Your task to perform on an android device: Open Google Maps and go to "Timeline" Image 0: 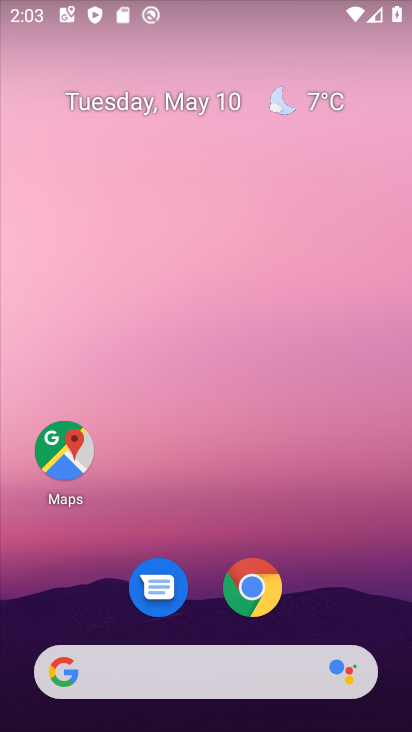
Step 0: drag from (352, 576) to (291, 147)
Your task to perform on an android device: Open Google Maps and go to "Timeline" Image 1: 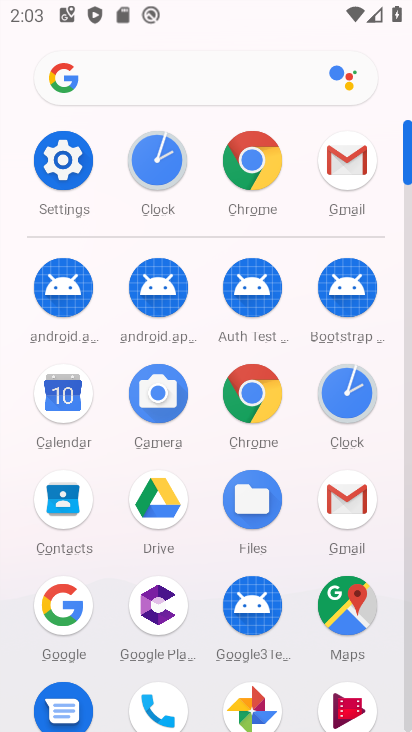
Step 1: click (345, 602)
Your task to perform on an android device: Open Google Maps and go to "Timeline" Image 2: 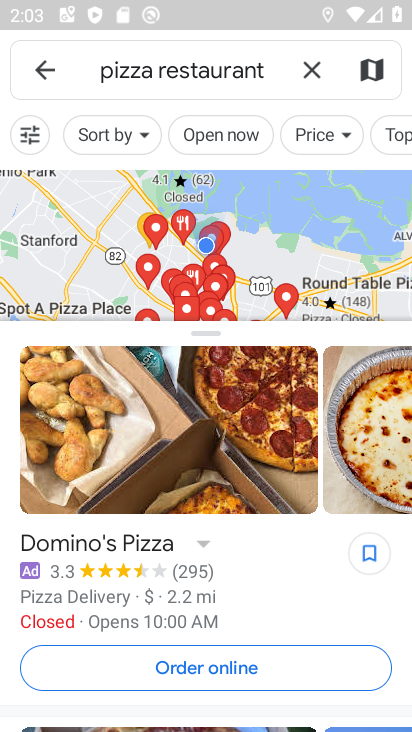
Step 2: click (43, 72)
Your task to perform on an android device: Open Google Maps and go to "Timeline" Image 3: 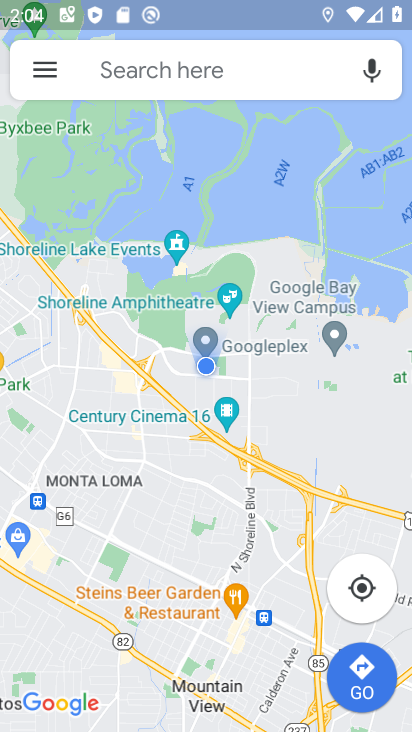
Step 3: click (41, 75)
Your task to perform on an android device: Open Google Maps and go to "Timeline" Image 4: 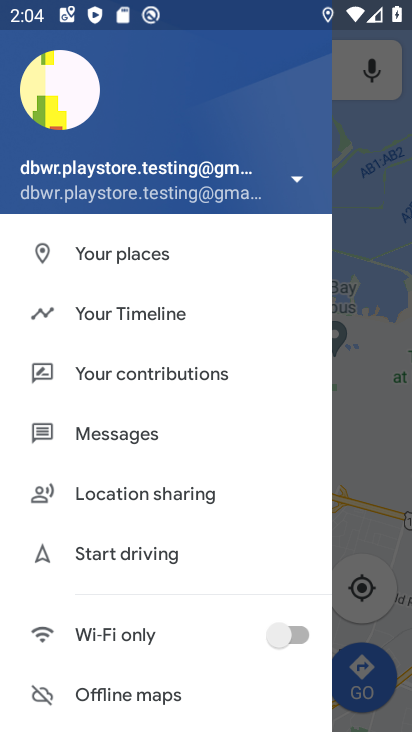
Step 4: click (126, 309)
Your task to perform on an android device: Open Google Maps and go to "Timeline" Image 5: 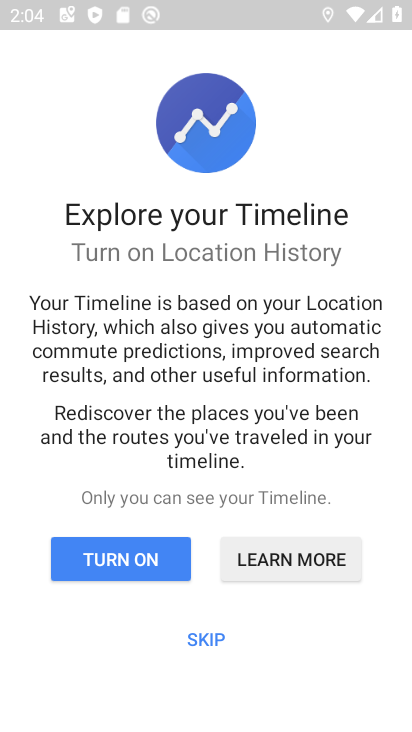
Step 5: click (214, 632)
Your task to perform on an android device: Open Google Maps and go to "Timeline" Image 6: 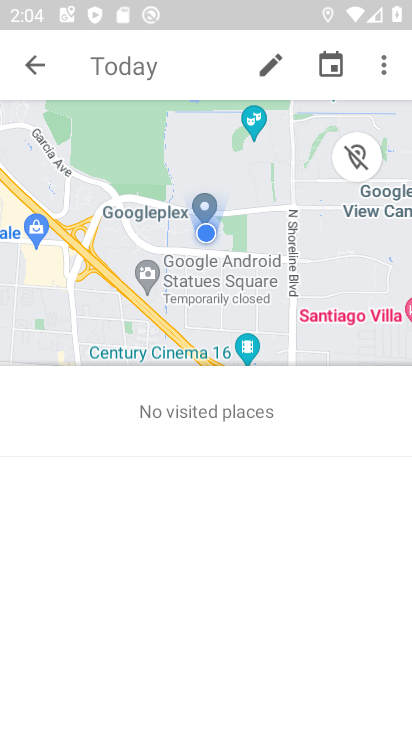
Step 6: task complete